Your task to perform on an android device: Go to battery settings Image 0: 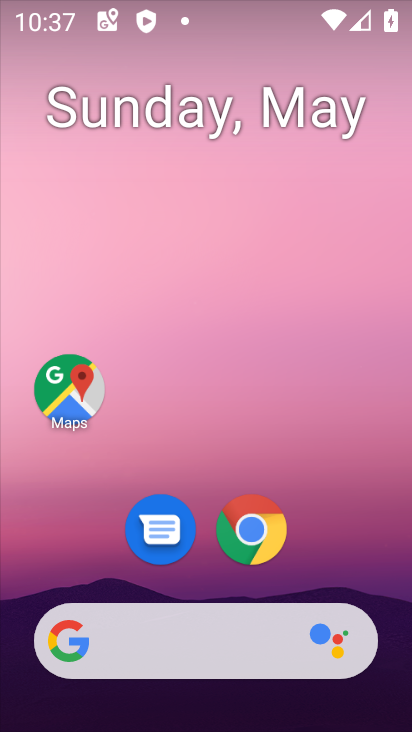
Step 0: drag from (202, 614) to (185, 146)
Your task to perform on an android device: Go to battery settings Image 1: 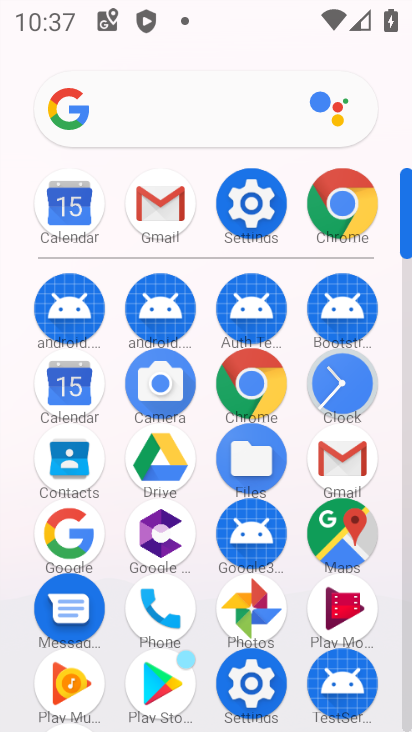
Step 1: click (244, 212)
Your task to perform on an android device: Go to battery settings Image 2: 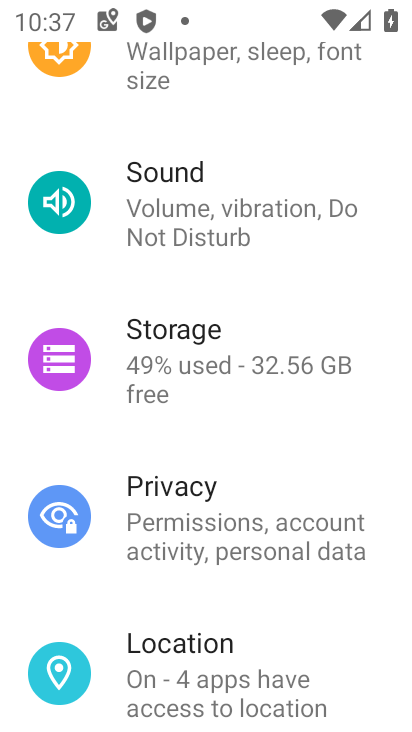
Step 2: drag from (239, 278) to (156, 712)
Your task to perform on an android device: Go to battery settings Image 3: 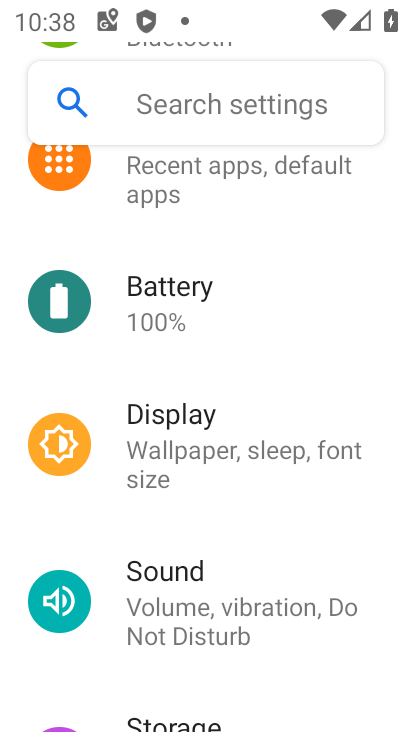
Step 3: click (156, 339)
Your task to perform on an android device: Go to battery settings Image 4: 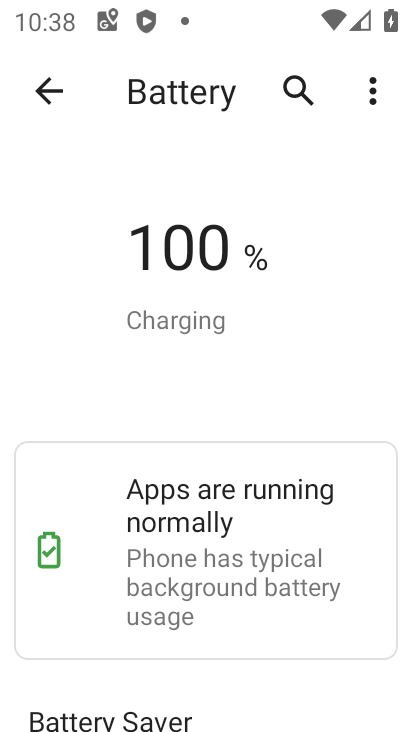
Step 4: task complete